Your task to perform on an android device: Open location settings Image 0: 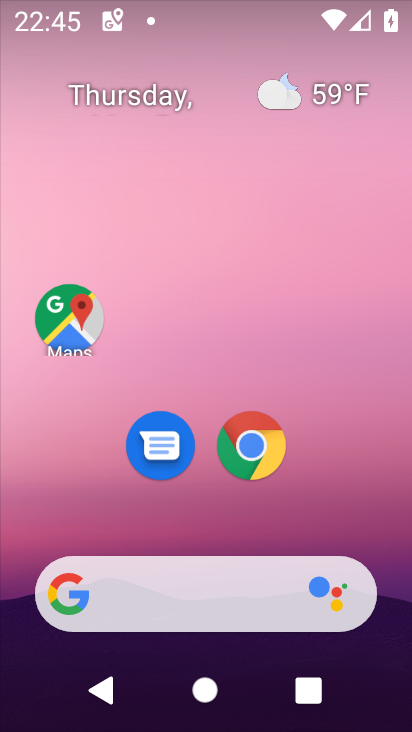
Step 0: drag from (235, 576) to (219, 33)
Your task to perform on an android device: Open location settings Image 1: 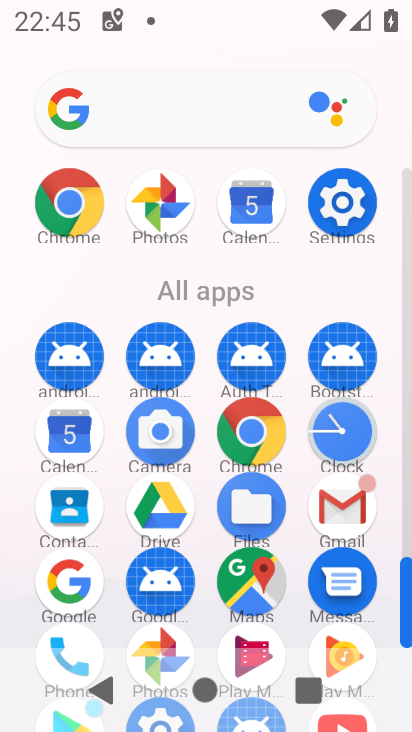
Step 1: click (336, 201)
Your task to perform on an android device: Open location settings Image 2: 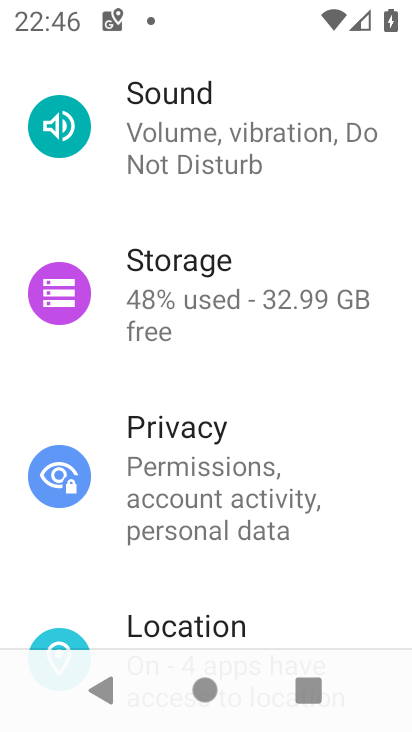
Step 2: click (159, 622)
Your task to perform on an android device: Open location settings Image 3: 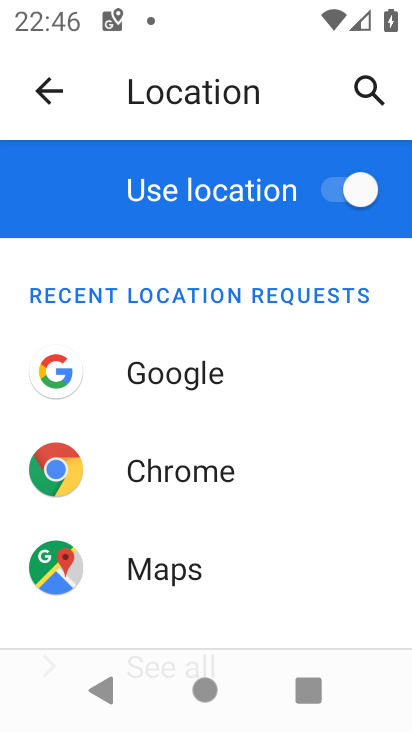
Step 3: task complete